Your task to perform on an android device: Open Chrome and go to settings Image 0: 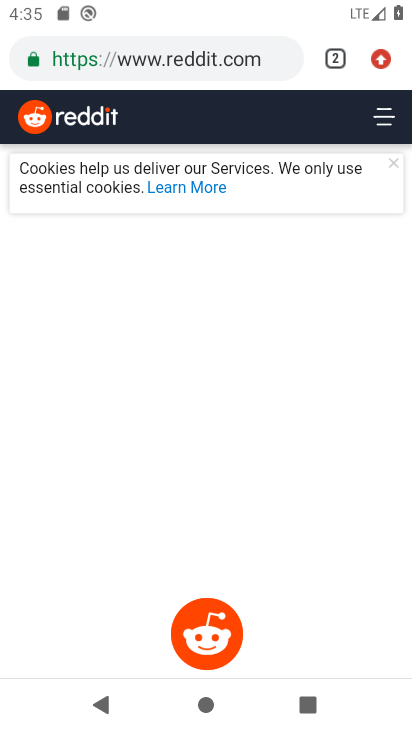
Step 0: press home button
Your task to perform on an android device: Open Chrome and go to settings Image 1: 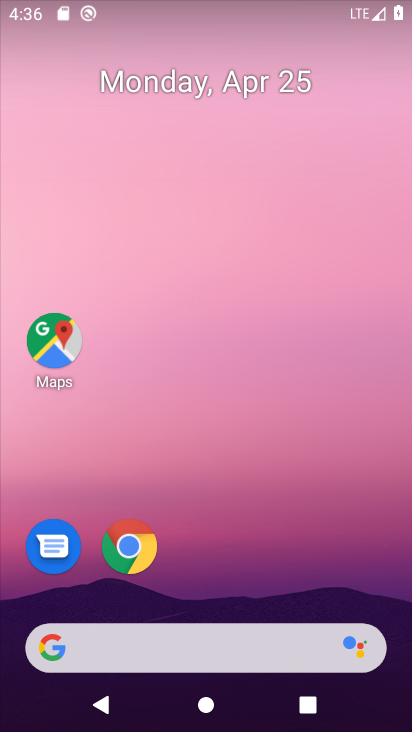
Step 1: click (126, 539)
Your task to perform on an android device: Open Chrome and go to settings Image 2: 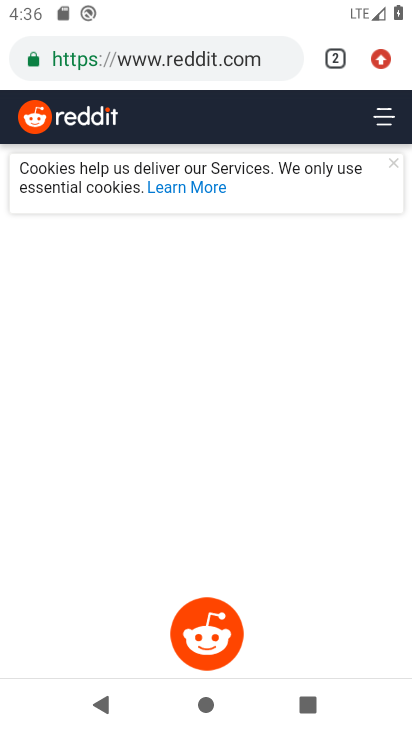
Step 2: click (387, 59)
Your task to perform on an android device: Open Chrome and go to settings Image 3: 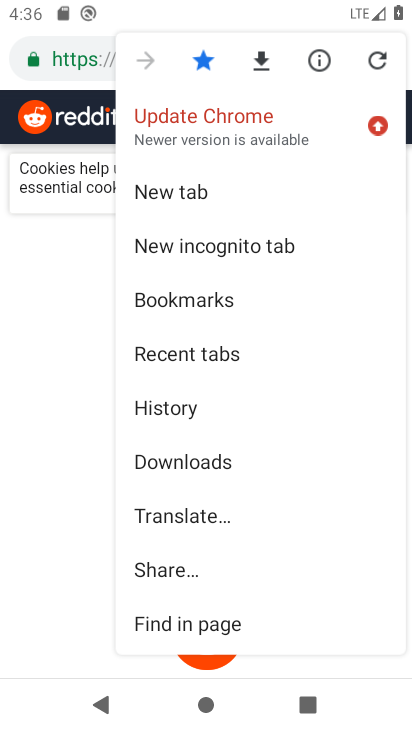
Step 3: drag from (255, 544) to (299, 249)
Your task to perform on an android device: Open Chrome and go to settings Image 4: 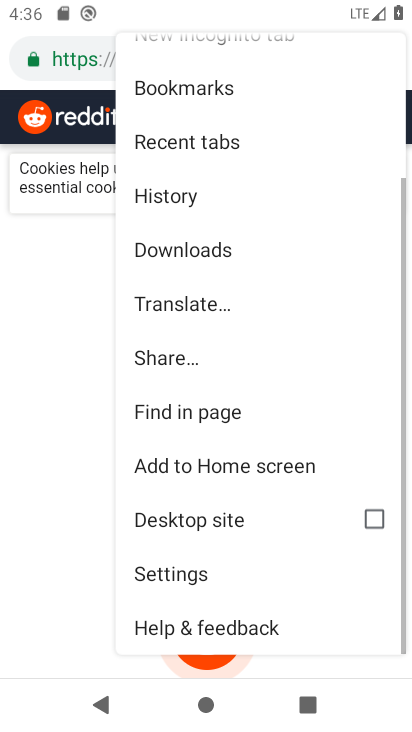
Step 4: click (241, 584)
Your task to perform on an android device: Open Chrome and go to settings Image 5: 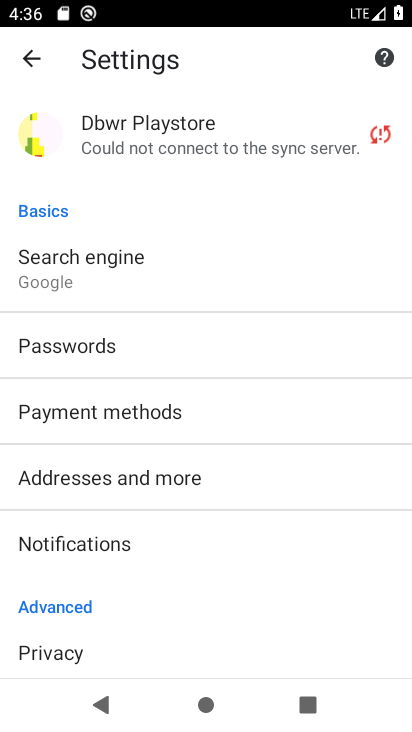
Step 5: task complete